Your task to perform on an android device: Open Chrome and go to settings Image 0: 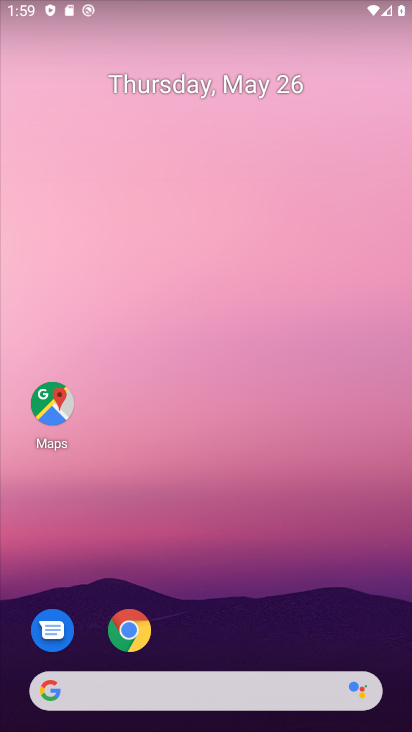
Step 0: click (132, 630)
Your task to perform on an android device: Open Chrome and go to settings Image 1: 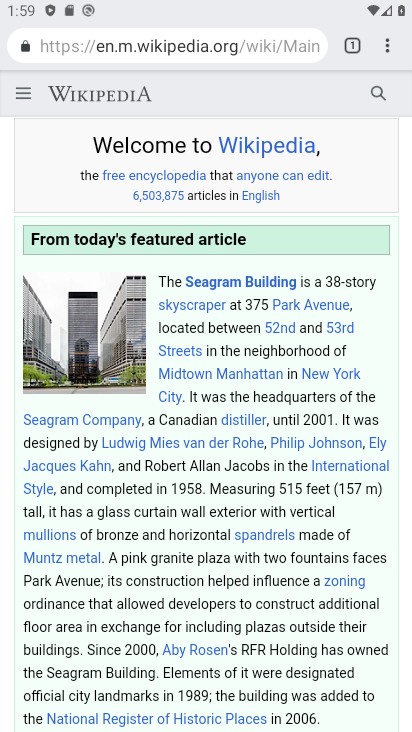
Step 1: click (378, 50)
Your task to perform on an android device: Open Chrome and go to settings Image 2: 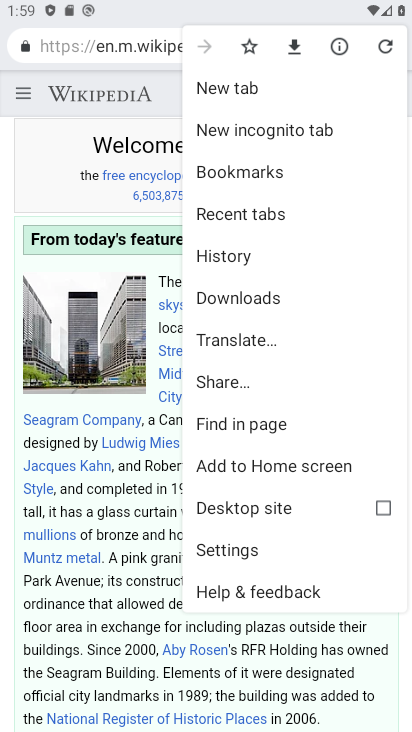
Step 2: click (252, 546)
Your task to perform on an android device: Open Chrome and go to settings Image 3: 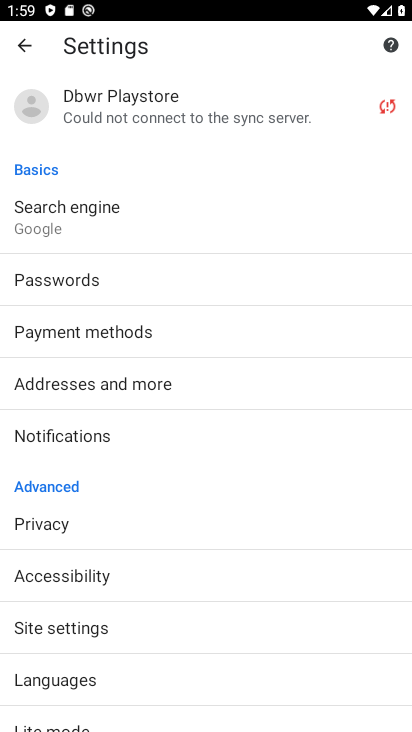
Step 3: task complete